Your task to perform on an android device: turn off improve location accuracy Image 0: 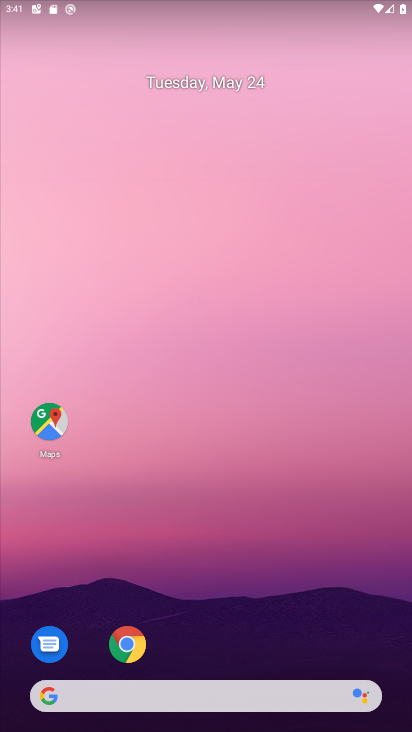
Step 0: drag from (347, 582) to (212, 152)
Your task to perform on an android device: turn off improve location accuracy Image 1: 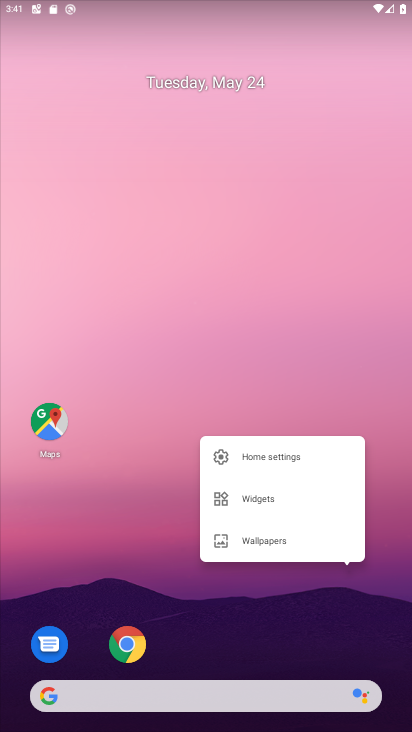
Step 1: click (212, 151)
Your task to perform on an android device: turn off improve location accuracy Image 2: 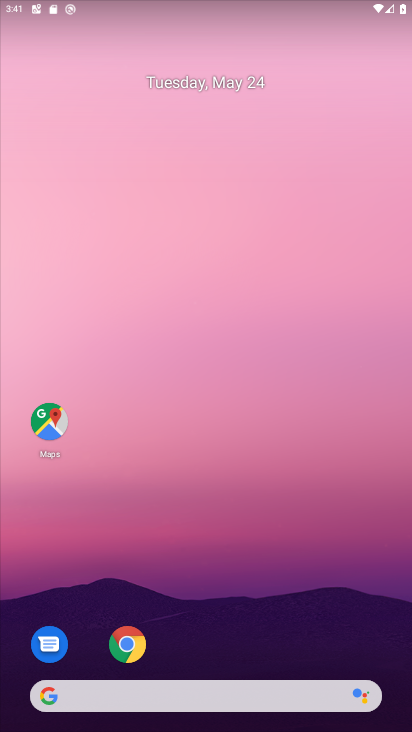
Step 2: drag from (253, 635) to (196, 136)
Your task to perform on an android device: turn off improve location accuracy Image 3: 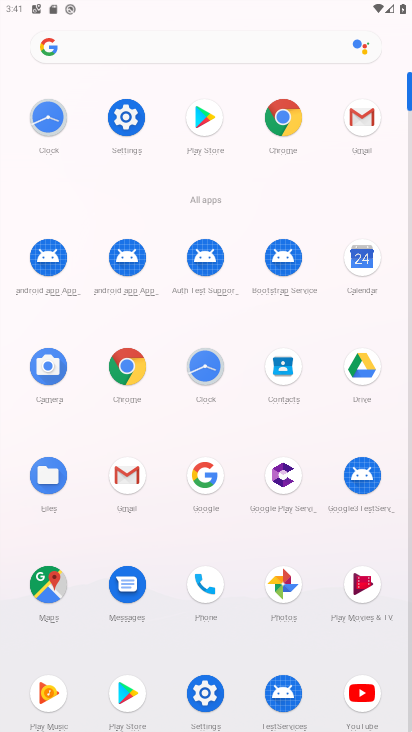
Step 3: click (132, 140)
Your task to perform on an android device: turn off improve location accuracy Image 4: 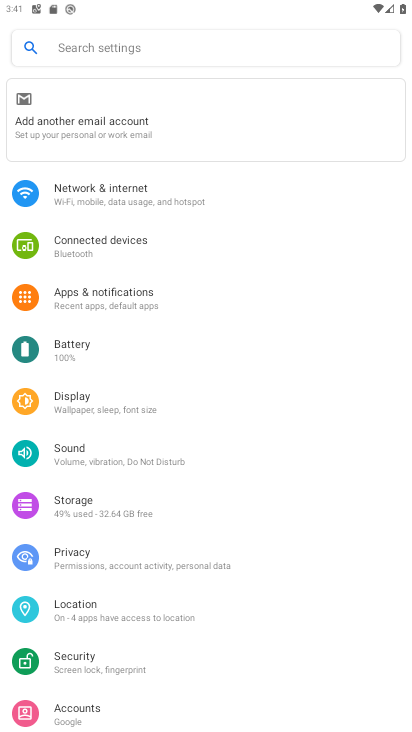
Step 4: drag from (220, 638) to (153, 315)
Your task to perform on an android device: turn off improve location accuracy Image 5: 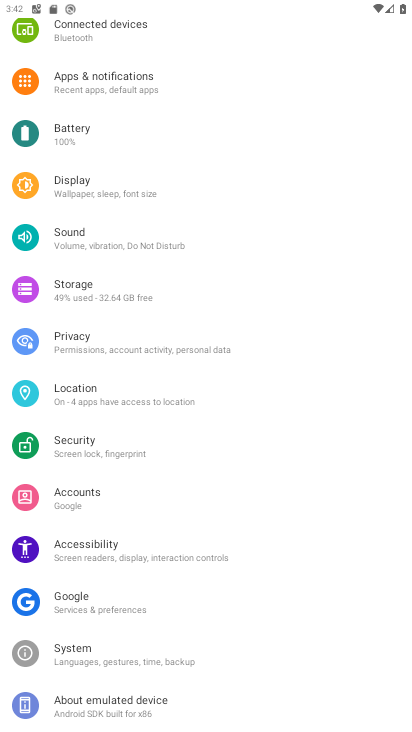
Step 5: click (81, 382)
Your task to perform on an android device: turn off improve location accuracy Image 6: 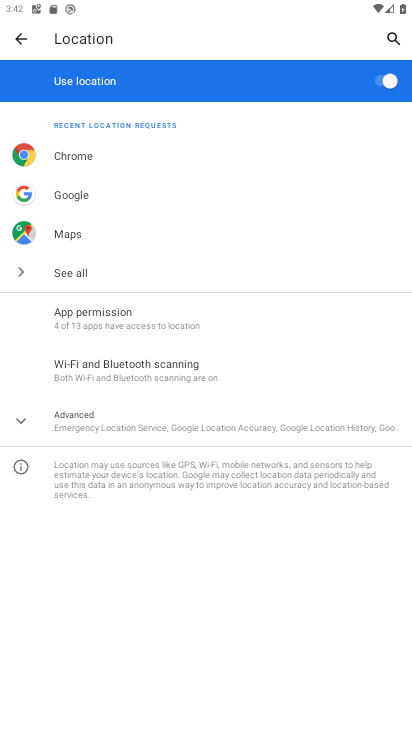
Step 6: click (110, 418)
Your task to perform on an android device: turn off improve location accuracy Image 7: 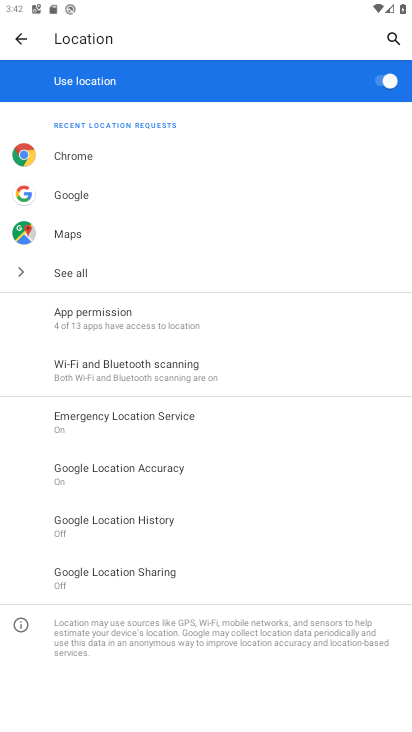
Step 7: click (159, 476)
Your task to perform on an android device: turn off improve location accuracy Image 8: 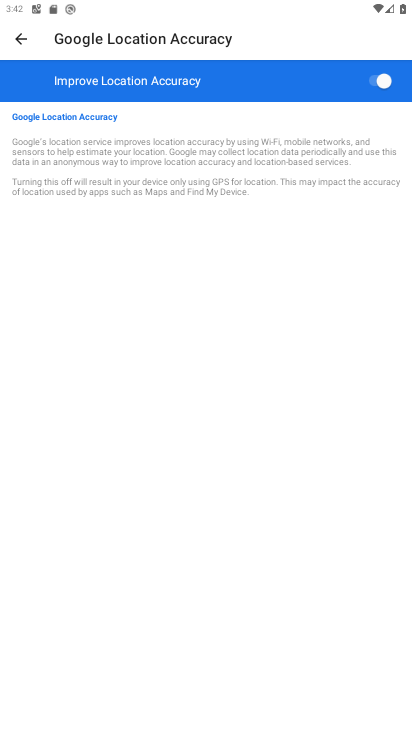
Step 8: click (362, 76)
Your task to perform on an android device: turn off improve location accuracy Image 9: 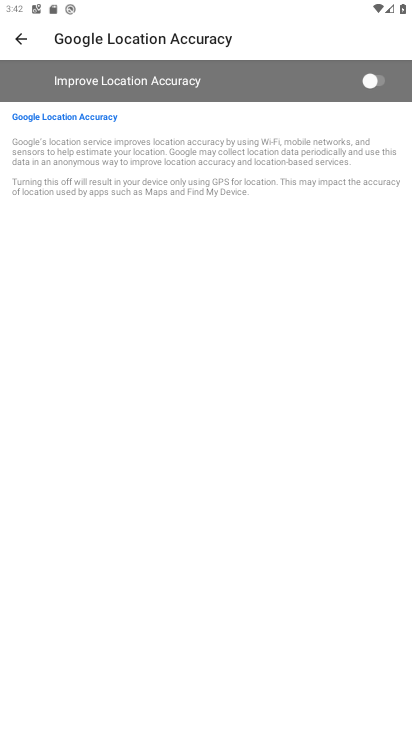
Step 9: task complete